Your task to perform on an android device: make emails show in primary in the gmail app Image 0: 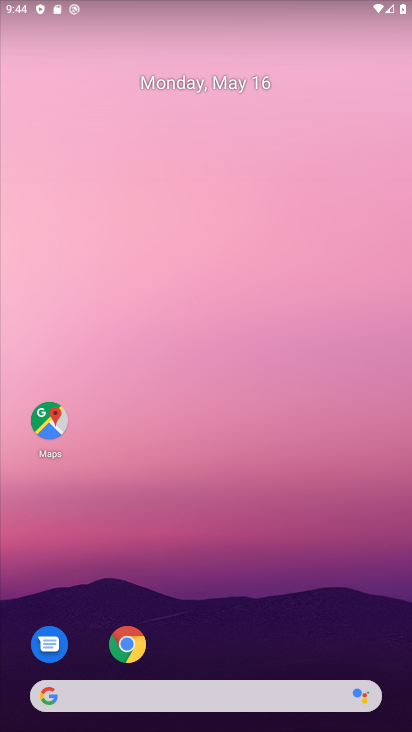
Step 0: drag from (87, 451) to (305, 66)
Your task to perform on an android device: make emails show in primary in the gmail app Image 1: 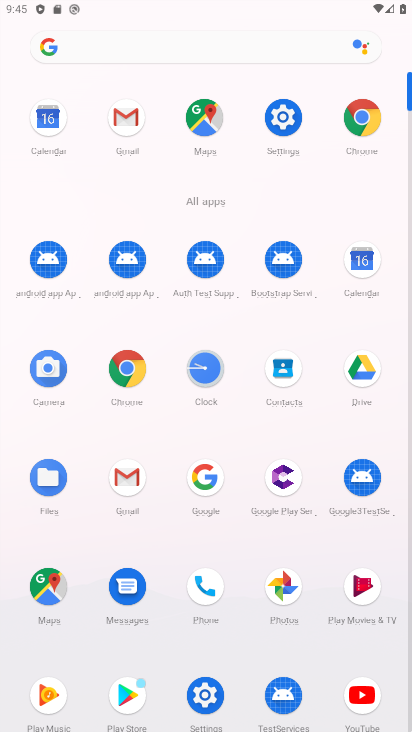
Step 1: click (135, 476)
Your task to perform on an android device: make emails show in primary in the gmail app Image 2: 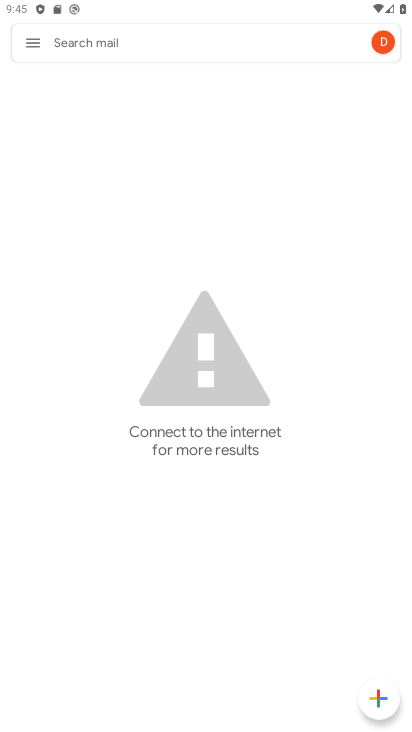
Step 2: click (44, 41)
Your task to perform on an android device: make emails show in primary in the gmail app Image 3: 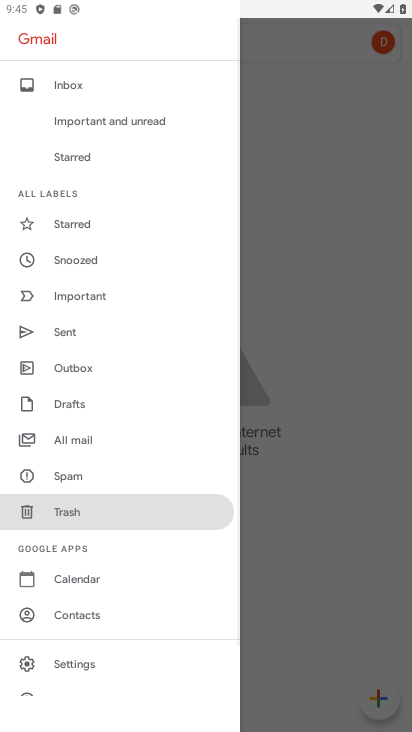
Step 3: drag from (101, 107) to (87, 621)
Your task to perform on an android device: make emails show in primary in the gmail app Image 4: 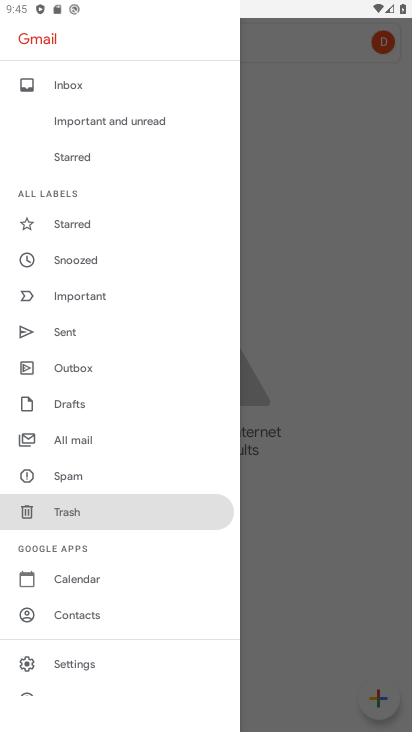
Step 4: click (134, 84)
Your task to perform on an android device: make emails show in primary in the gmail app Image 5: 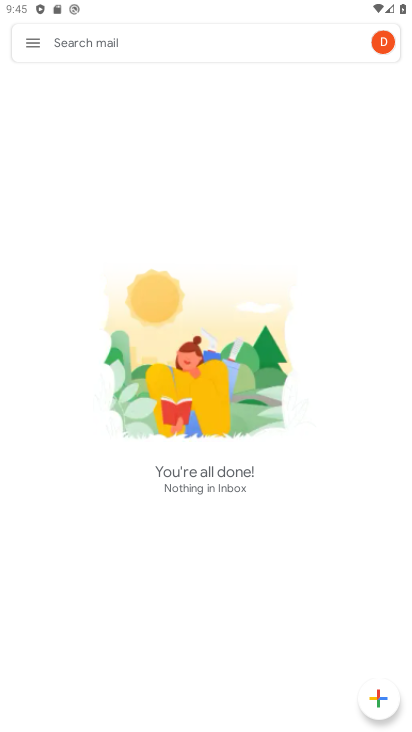
Step 5: task complete